Your task to perform on an android device: Open the map Image 0: 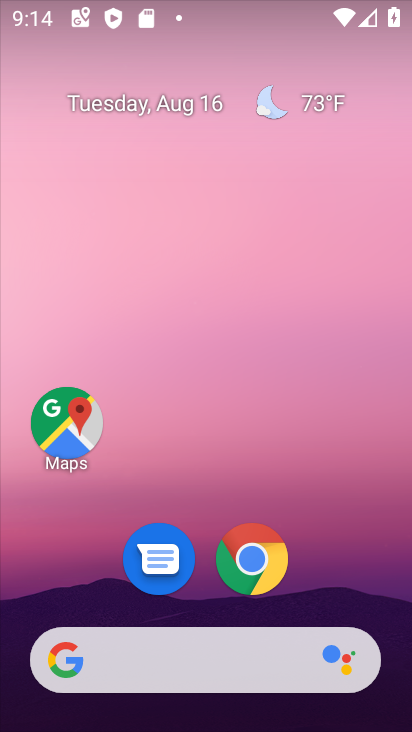
Step 0: drag from (342, 573) to (364, 130)
Your task to perform on an android device: Open the map Image 1: 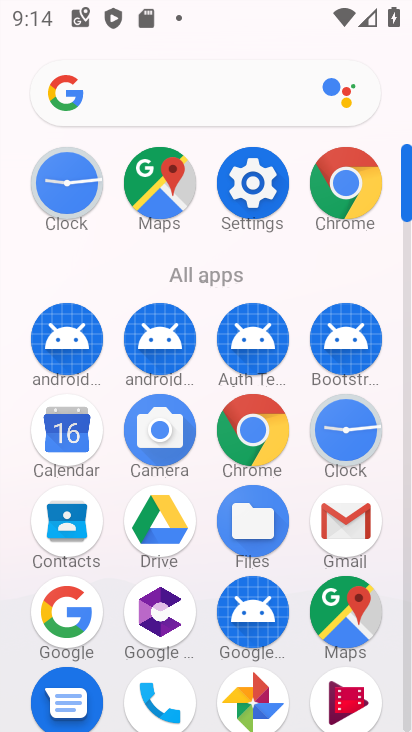
Step 1: click (353, 590)
Your task to perform on an android device: Open the map Image 2: 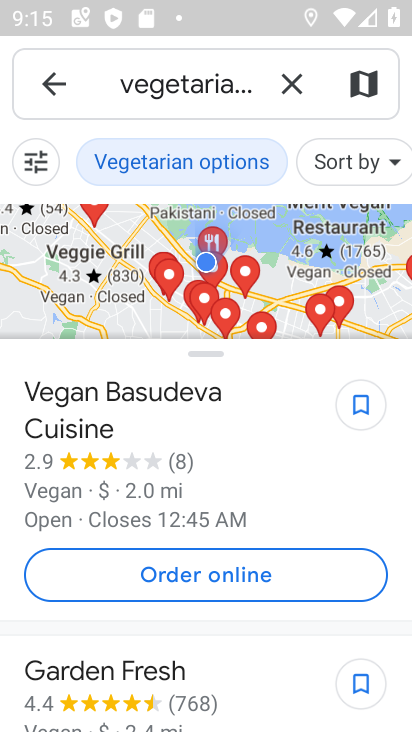
Step 2: click (44, 87)
Your task to perform on an android device: Open the map Image 3: 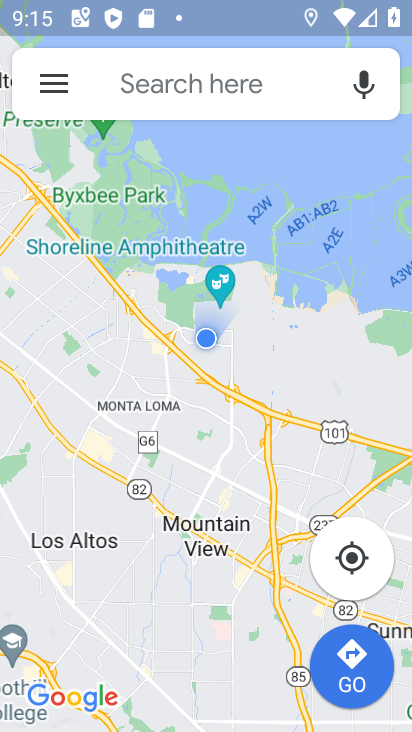
Step 3: task complete